Your task to perform on an android device: Go to Android settings Image 0: 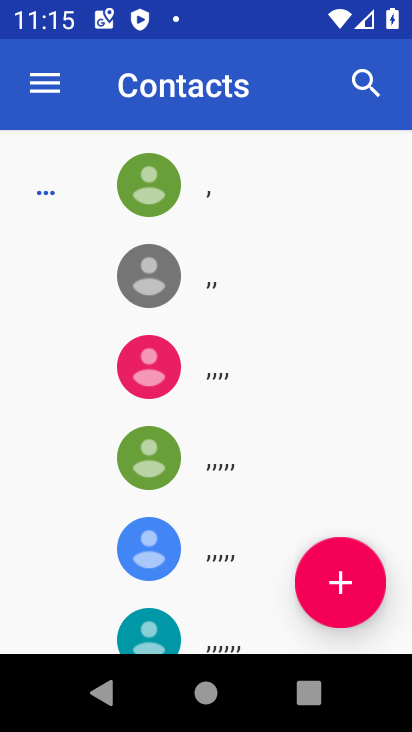
Step 0: press home button
Your task to perform on an android device: Go to Android settings Image 1: 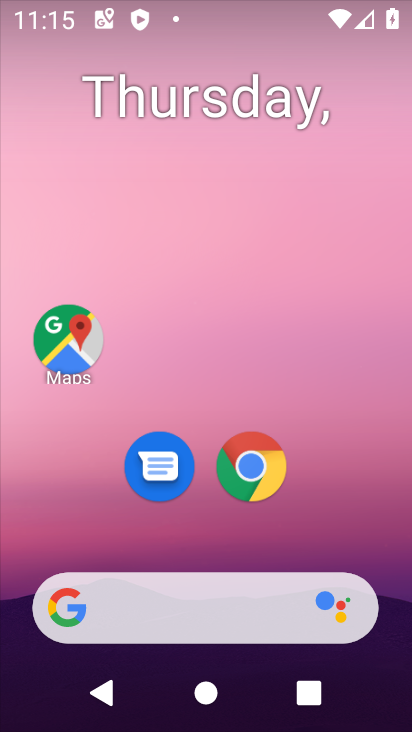
Step 1: drag from (395, 650) to (332, 16)
Your task to perform on an android device: Go to Android settings Image 2: 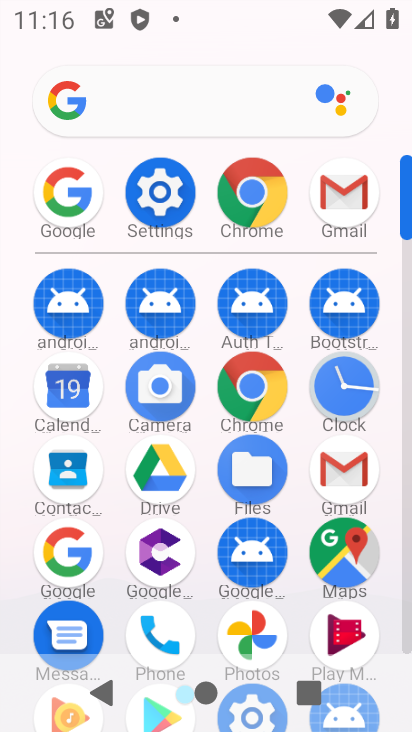
Step 2: click (151, 219)
Your task to perform on an android device: Go to Android settings Image 3: 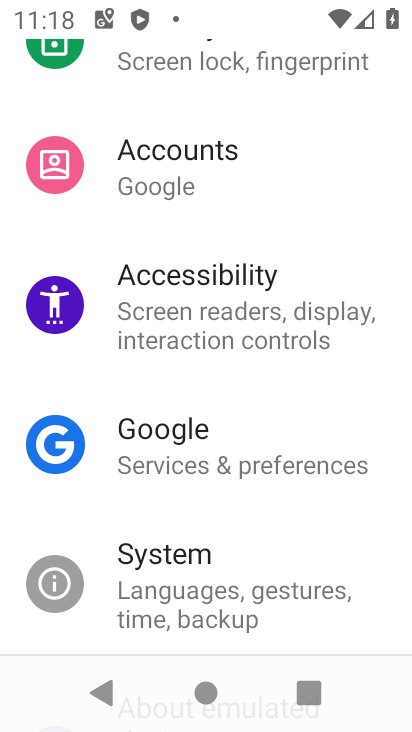
Step 3: drag from (140, 616) to (291, 25)
Your task to perform on an android device: Go to Android settings Image 4: 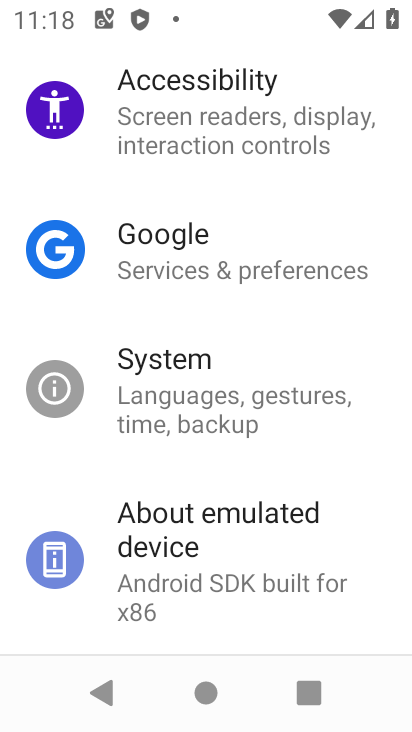
Step 4: click (228, 531)
Your task to perform on an android device: Go to Android settings Image 5: 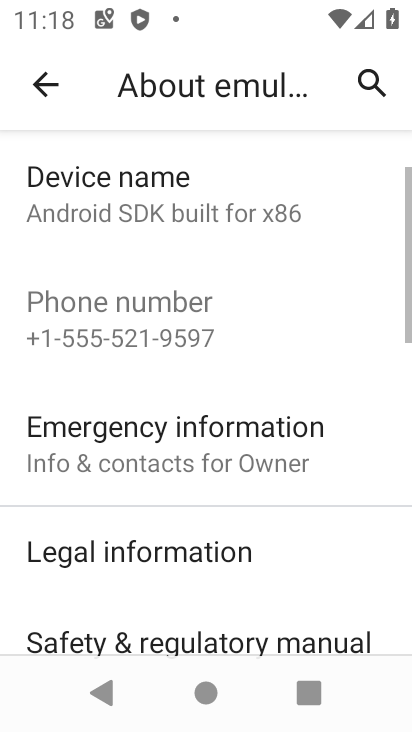
Step 5: drag from (166, 563) to (239, 129)
Your task to perform on an android device: Go to Android settings Image 6: 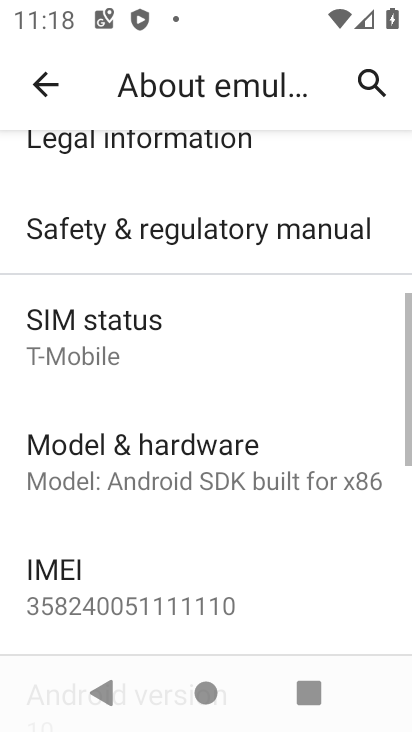
Step 6: drag from (187, 590) to (206, 126)
Your task to perform on an android device: Go to Android settings Image 7: 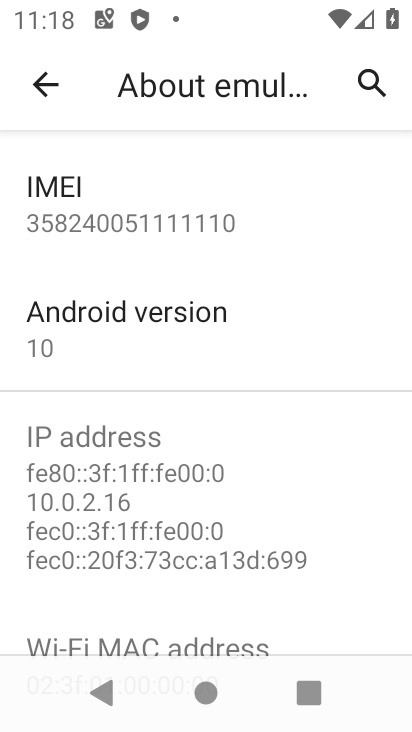
Step 7: click (185, 387)
Your task to perform on an android device: Go to Android settings Image 8: 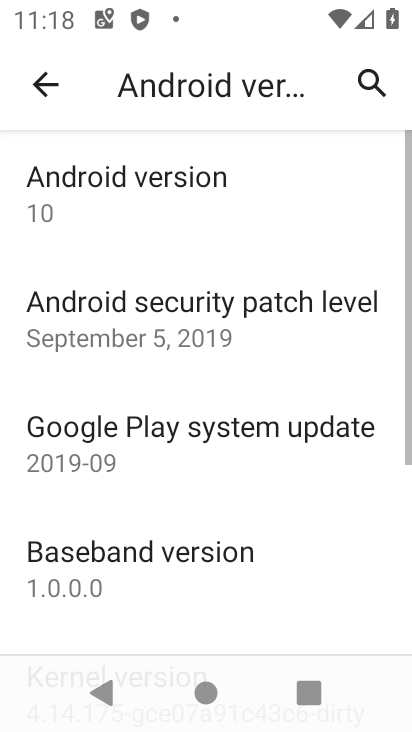
Step 8: task complete